Your task to perform on an android device: What's the weather today? Image 0: 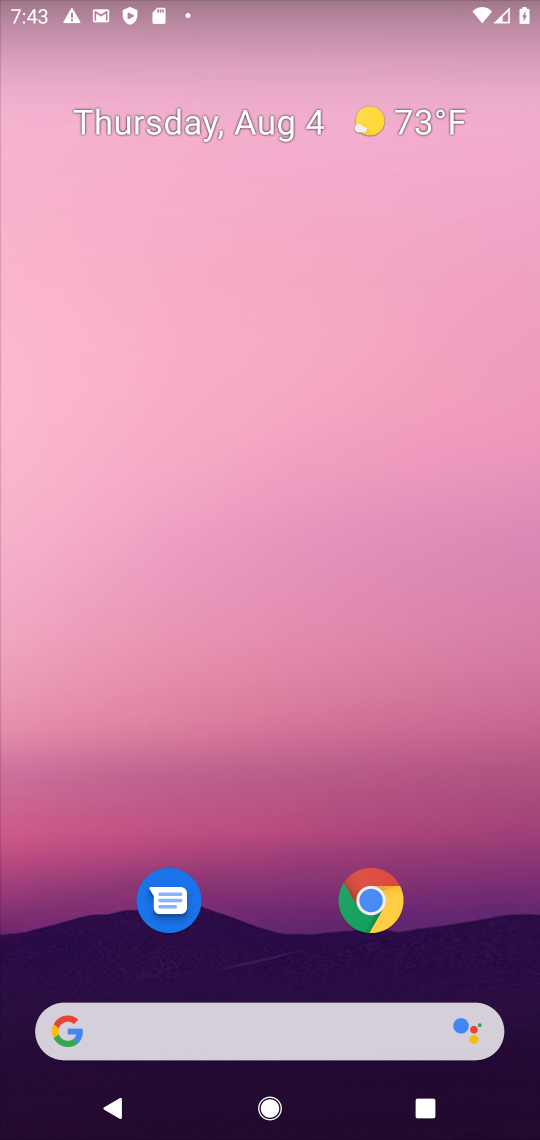
Step 0: click (219, 1013)
Your task to perform on an android device: What's the weather today? Image 1: 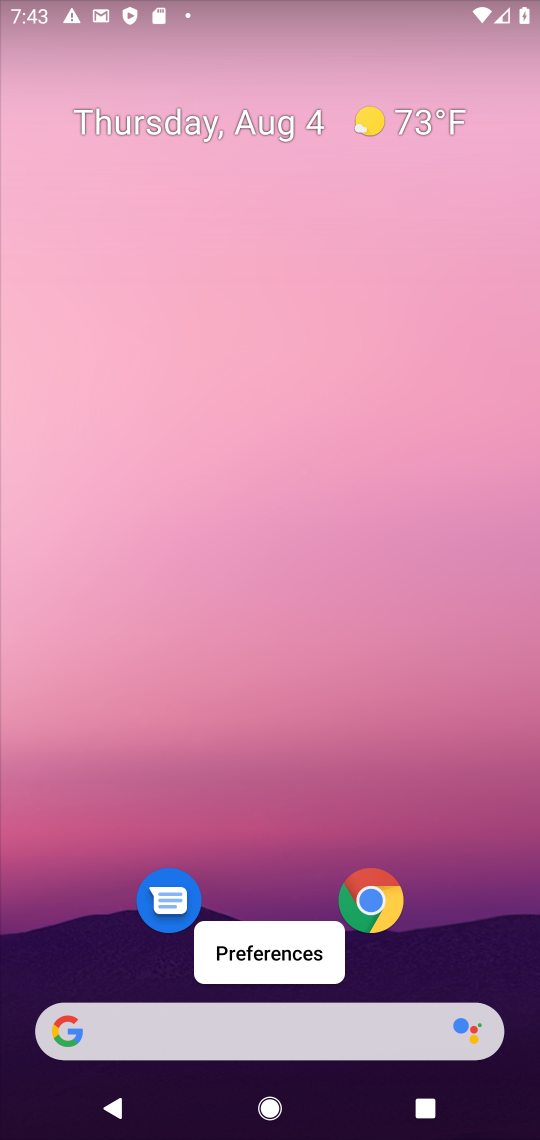
Step 1: click (170, 1015)
Your task to perform on an android device: What's the weather today? Image 2: 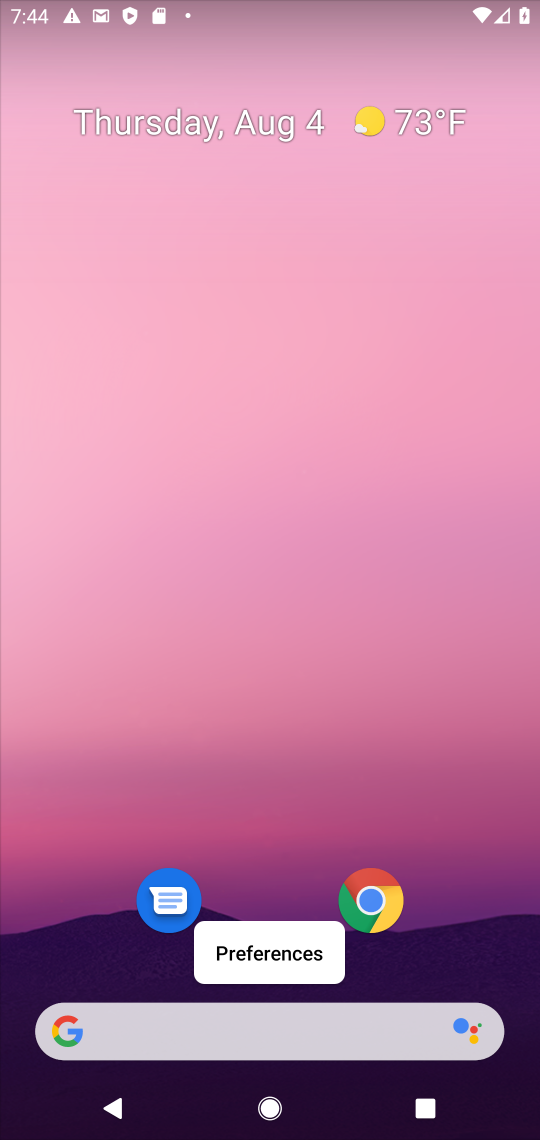
Step 2: click (165, 1026)
Your task to perform on an android device: What's the weather today? Image 3: 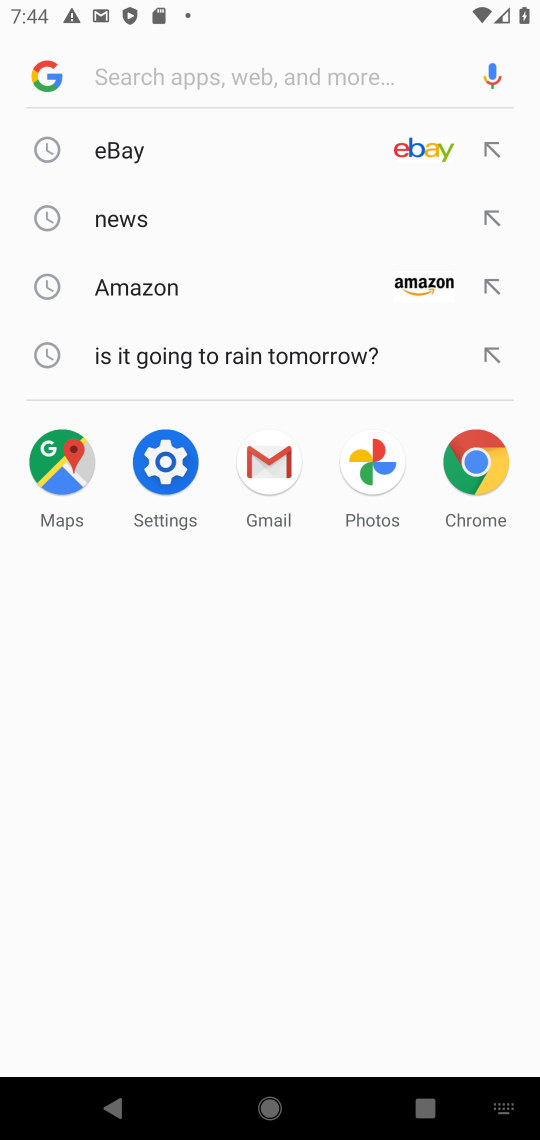
Step 3: type "weather"
Your task to perform on an android device: What's the weather today? Image 4: 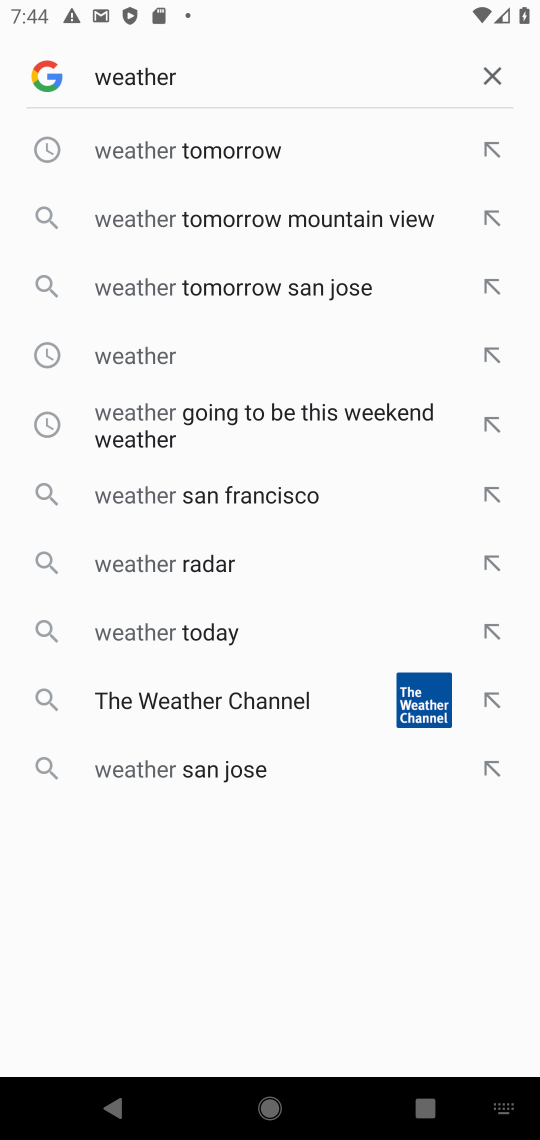
Step 4: click (128, 354)
Your task to perform on an android device: What's the weather today? Image 5: 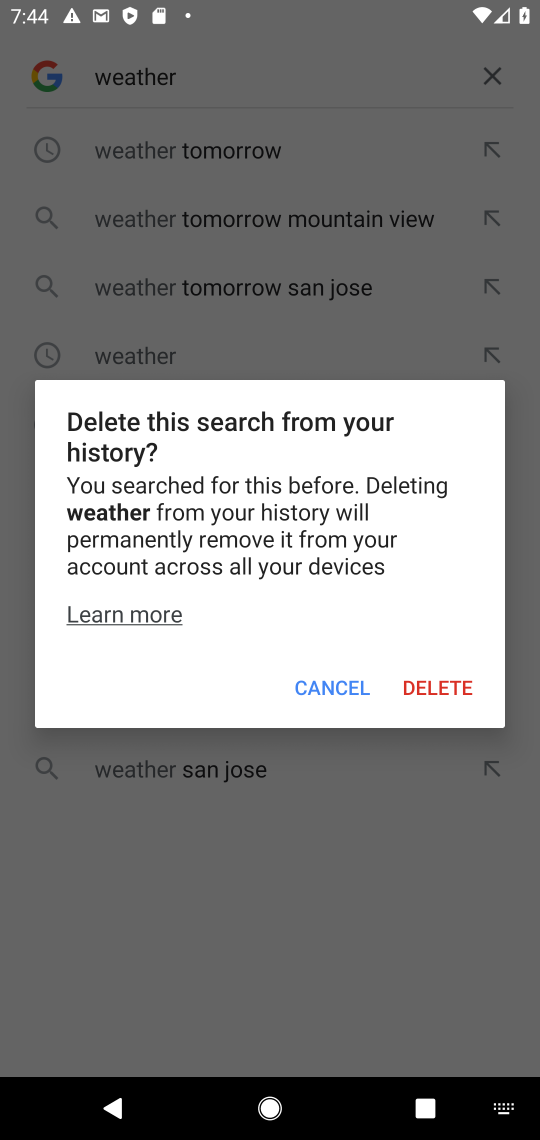
Step 5: click (329, 689)
Your task to perform on an android device: What's the weather today? Image 6: 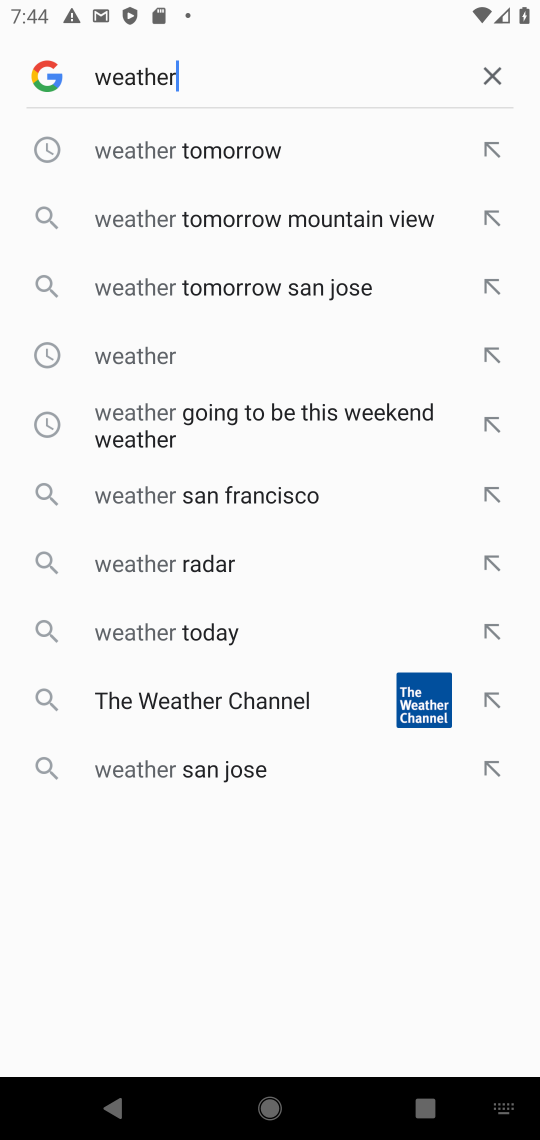
Step 6: click (139, 356)
Your task to perform on an android device: What's the weather today? Image 7: 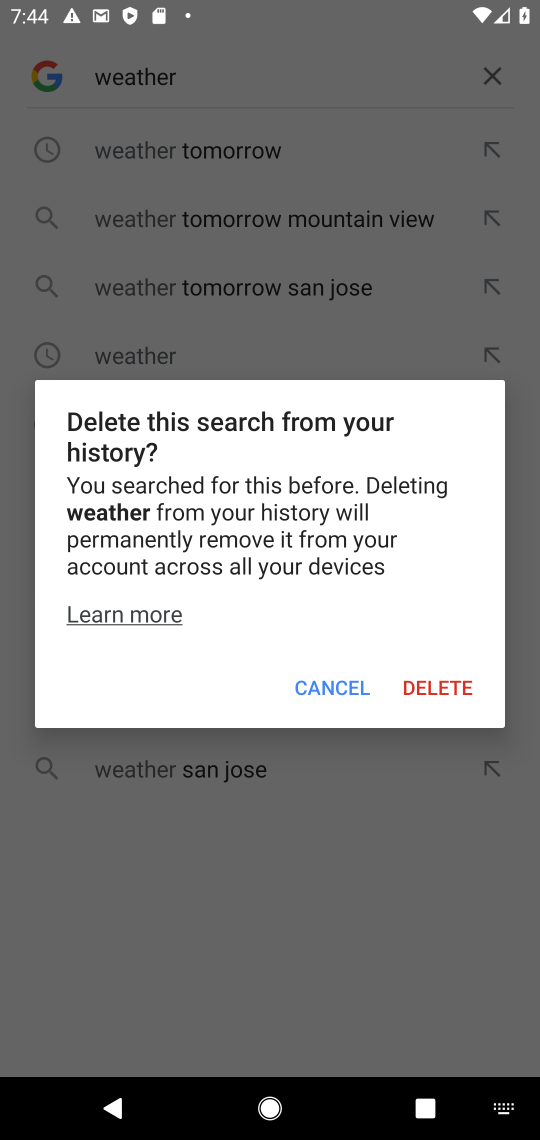
Step 7: click (339, 694)
Your task to perform on an android device: What's the weather today? Image 8: 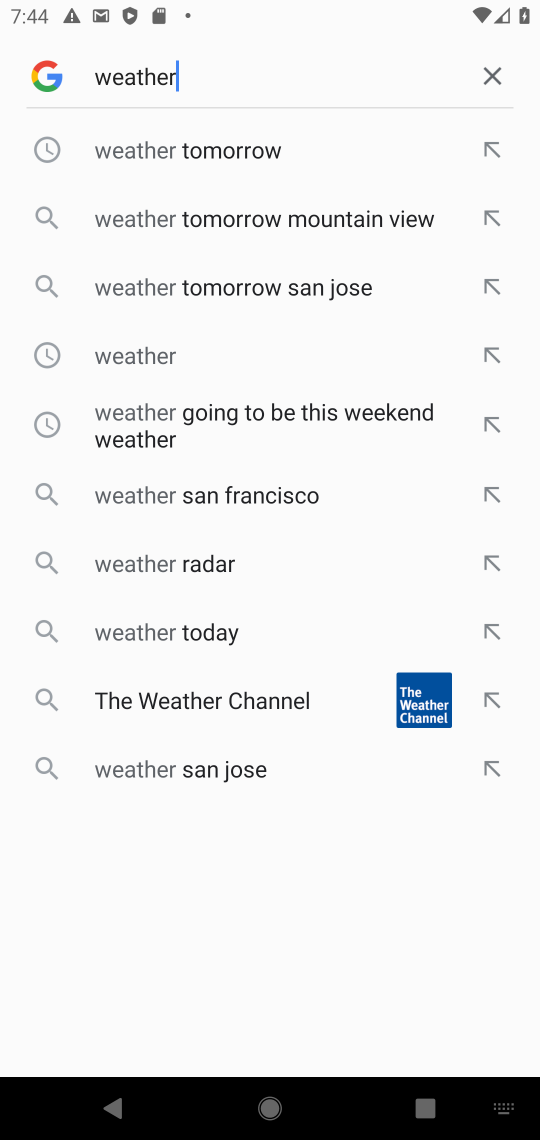
Step 8: click (265, 355)
Your task to perform on an android device: What's the weather today? Image 9: 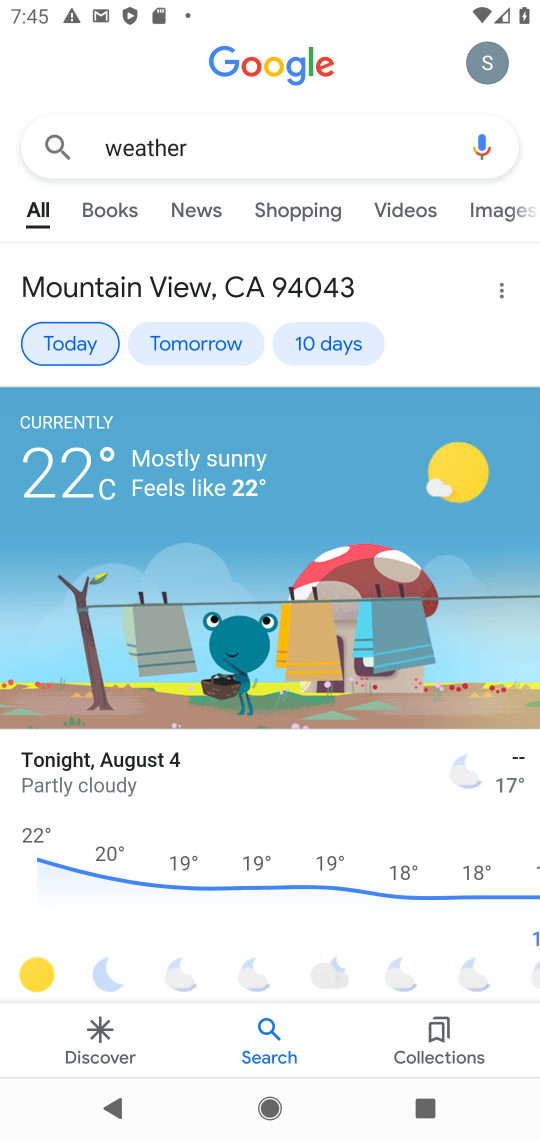
Step 9: task complete